Your task to perform on an android device: When is my next meeting? Image 0: 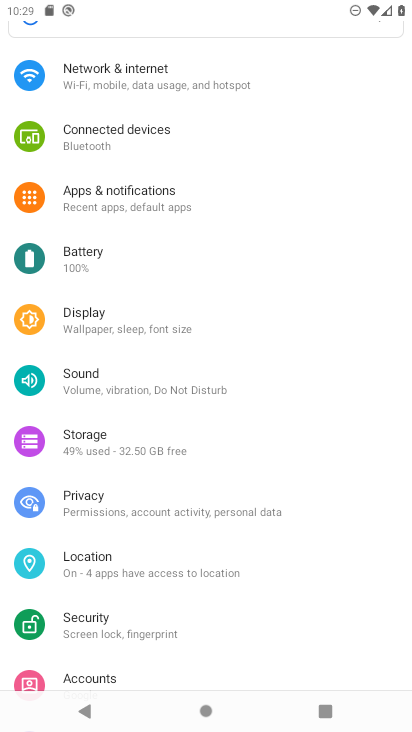
Step 0: press home button
Your task to perform on an android device: When is my next meeting? Image 1: 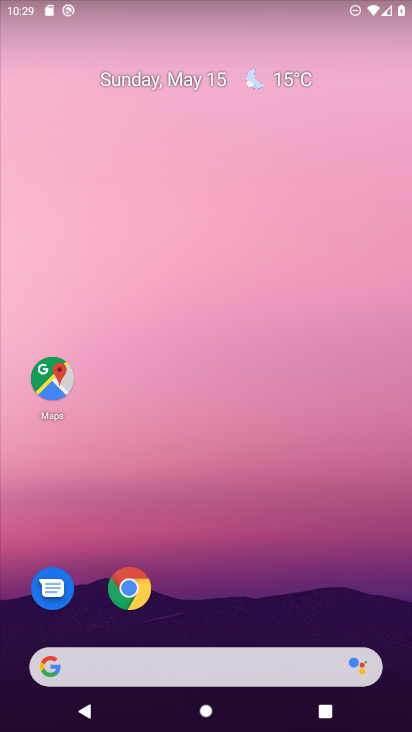
Step 1: drag from (214, 599) to (251, 192)
Your task to perform on an android device: When is my next meeting? Image 2: 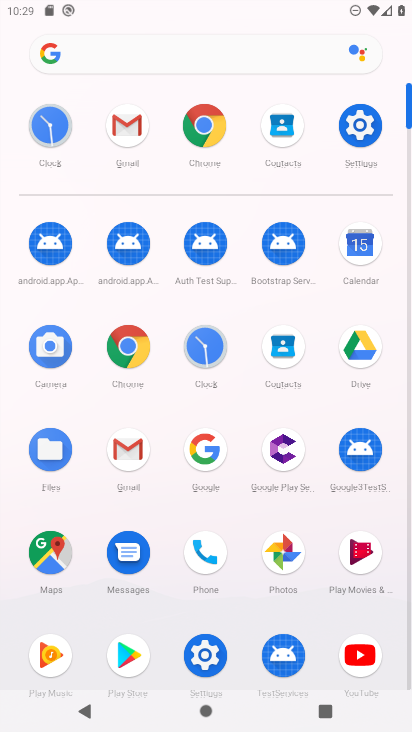
Step 2: click (365, 256)
Your task to perform on an android device: When is my next meeting? Image 3: 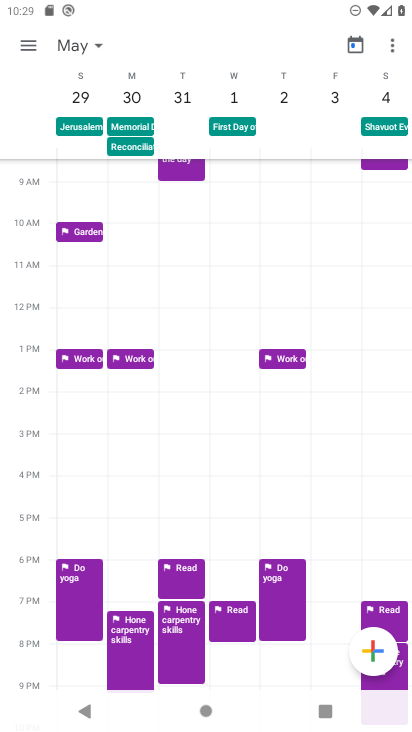
Step 3: click (27, 43)
Your task to perform on an android device: When is my next meeting? Image 4: 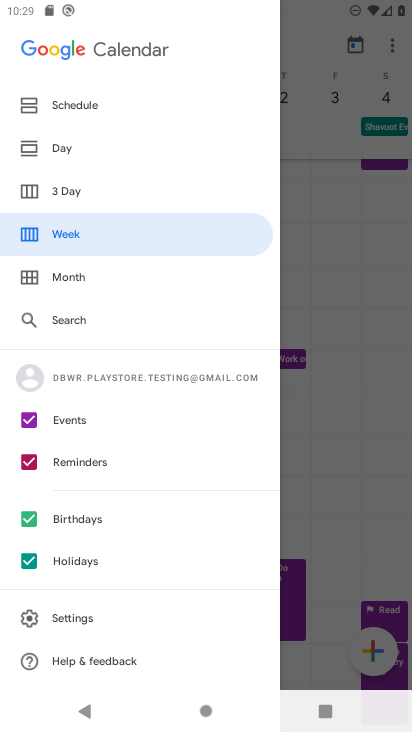
Step 4: click (71, 112)
Your task to perform on an android device: When is my next meeting? Image 5: 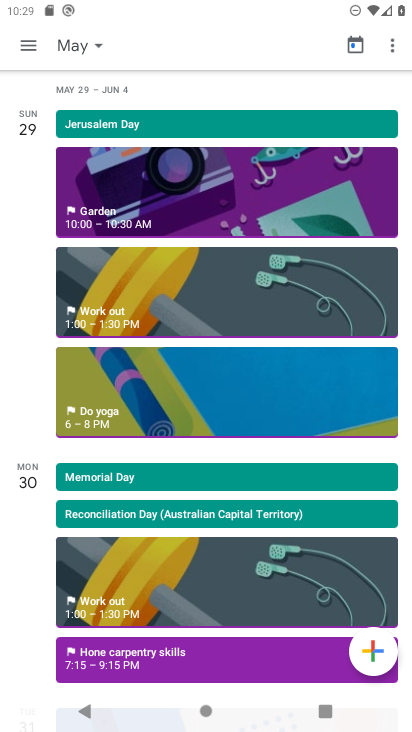
Step 5: drag from (157, 203) to (149, 502)
Your task to perform on an android device: When is my next meeting? Image 6: 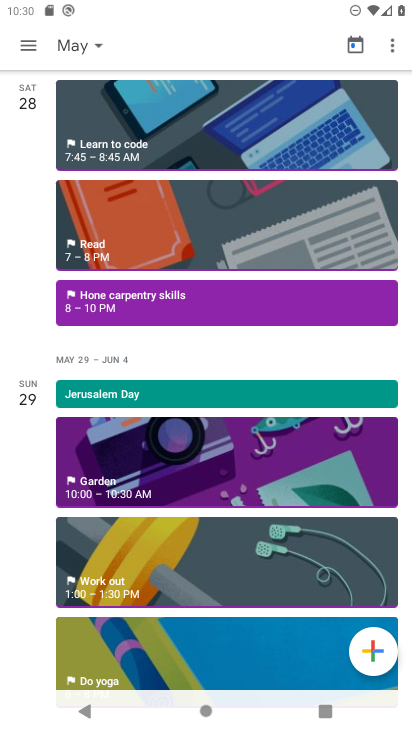
Step 6: drag from (191, 223) to (189, 359)
Your task to perform on an android device: When is my next meeting? Image 7: 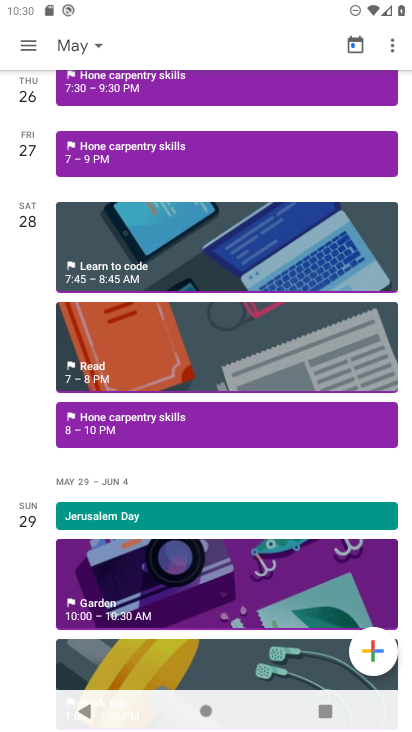
Step 7: drag from (168, 171) to (166, 475)
Your task to perform on an android device: When is my next meeting? Image 8: 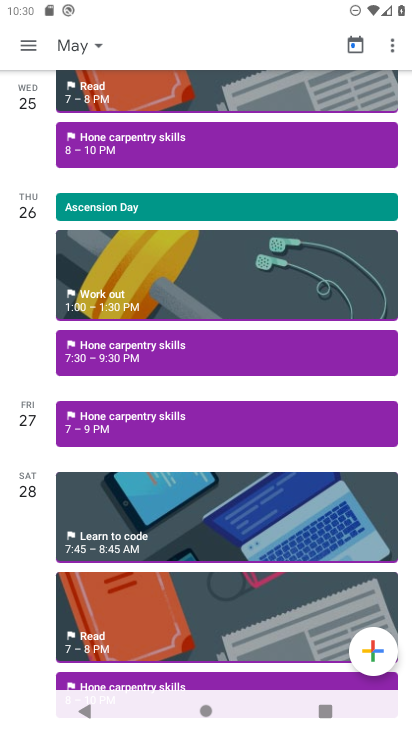
Step 8: drag from (152, 235) to (145, 615)
Your task to perform on an android device: When is my next meeting? Image 9: 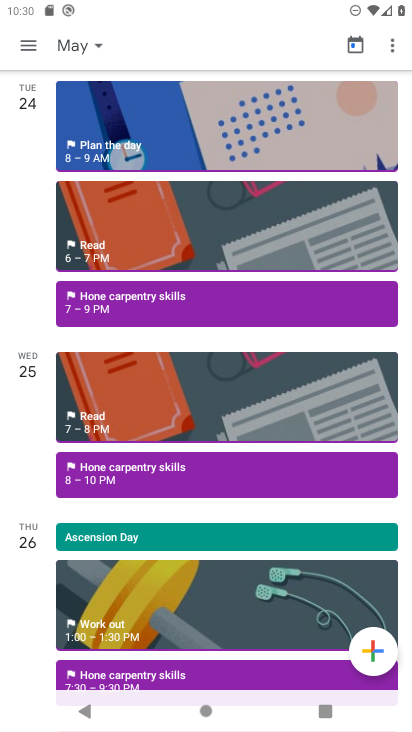
Step 9: drag from (162, 242) to (173, 511)
Your task to perform on an android device: When is my next meeting? Image 10: 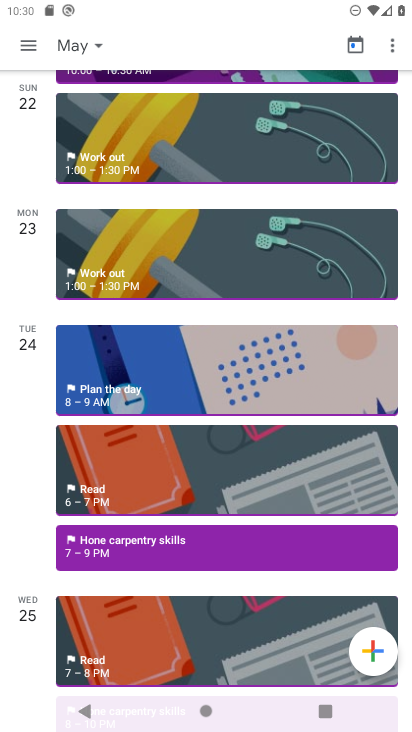
Step 10: click (154, 372)
Your task to perform on an android device: When is my next meeting? Image 11: 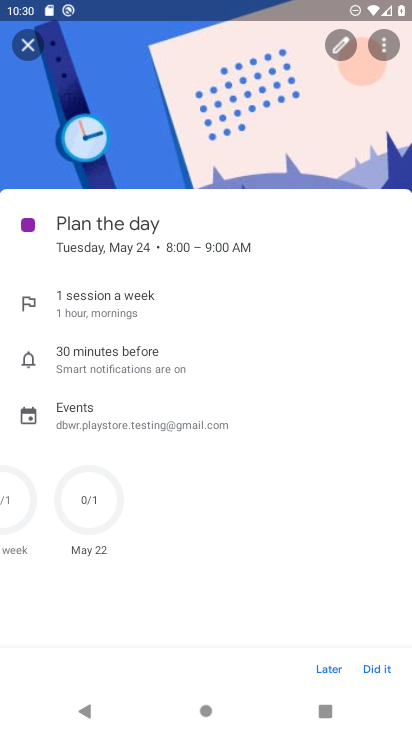
Step 11: click (25, 43)
Your task to perform on an android device: When is my next meeting? Image 12: 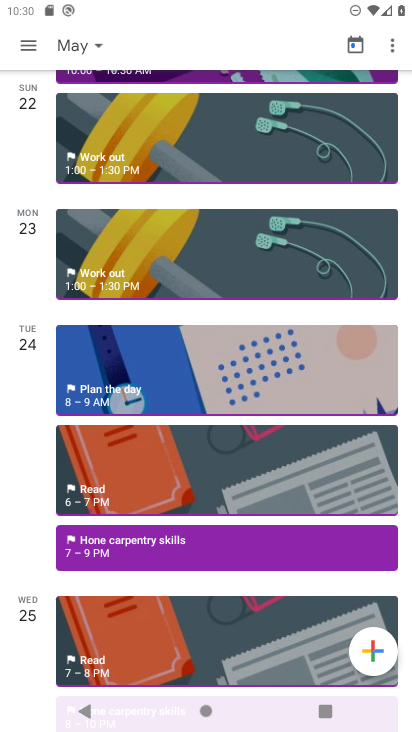
Step 12: task complete